Your task to perform on an android device: turn vacation reply on in the gmail app Image 0: 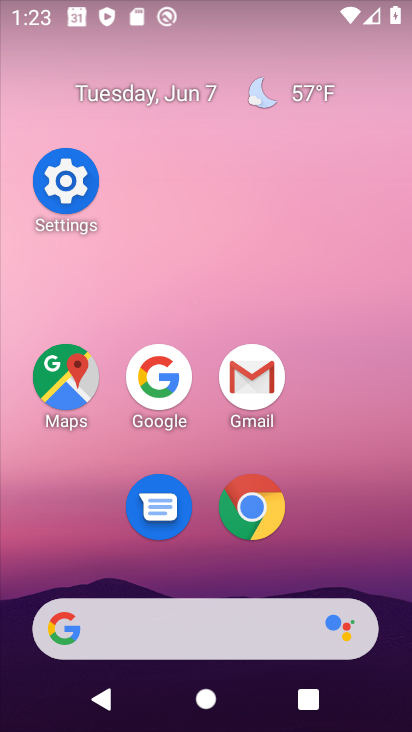
Step 0: click (263, 376)
Your task to perform on an android device: turn vacation reply on in the gmail app Image 1: 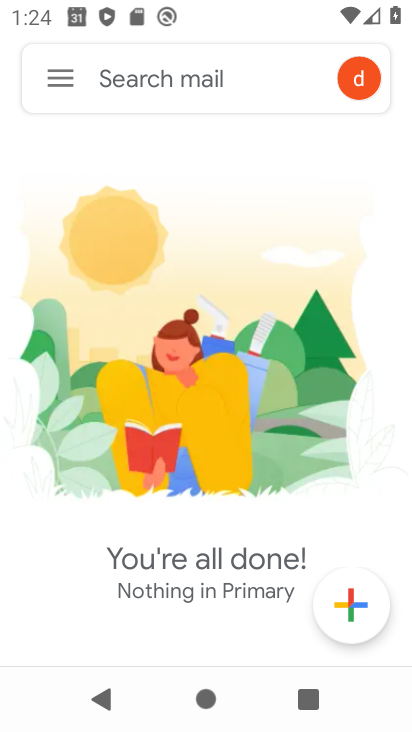
Step 1: click (67, 79)
Your task to perform on an android device: turn vacation reply on in the gmail app Image 2: 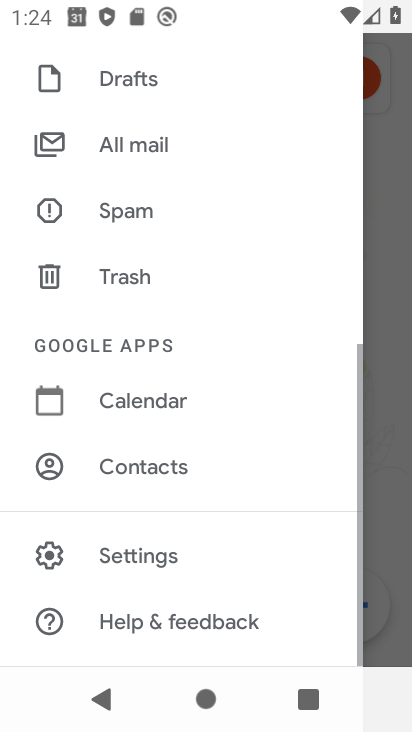
Step 2: click (172, 545)
Your task to perform on an android device: turn vacation reply on in the gmail app Image 3: 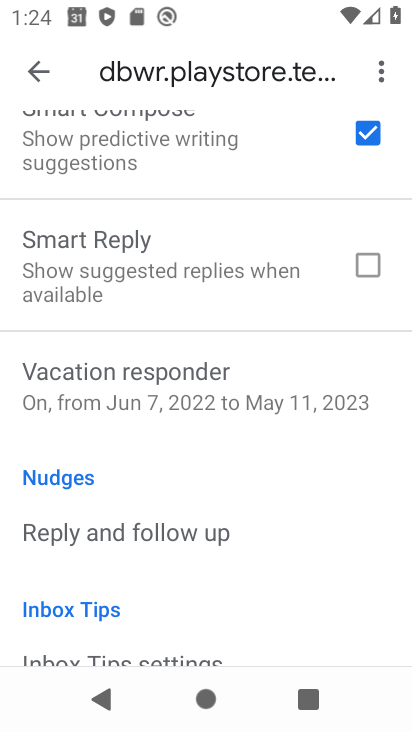
Step 3: click (218, 391)
Your task to perform on an android device: turn vacation reply on in the gmail app Image 4: 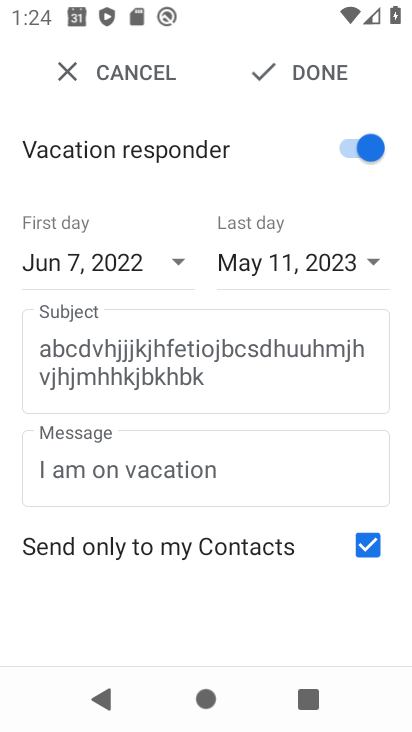
Step 4: click (330, 72)
Your task to perform on an android device: turn vacation reply on in the gmail app Image 5: 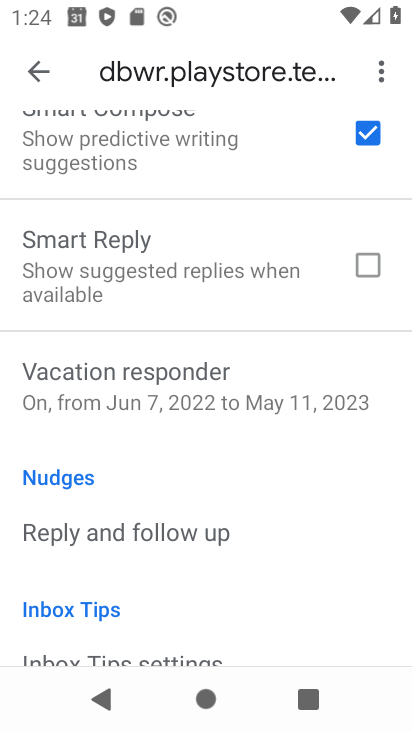
Step 5: task complete